Your task to perform on an android device: create a new album in the google photos Image 0: 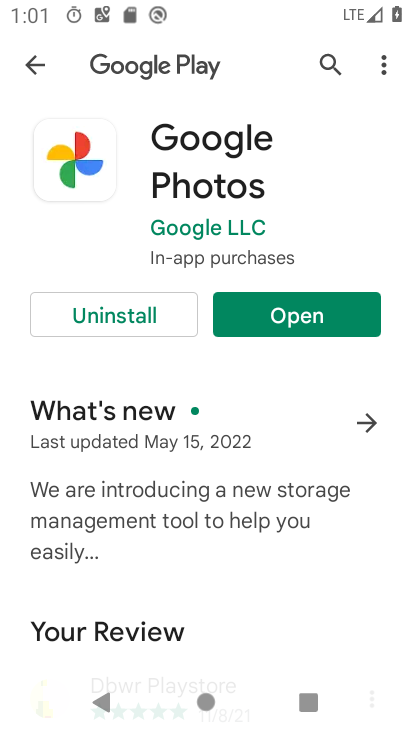
Step 0: press home button
Your task to perform on an android device: create a new album in the google photos Image 1: 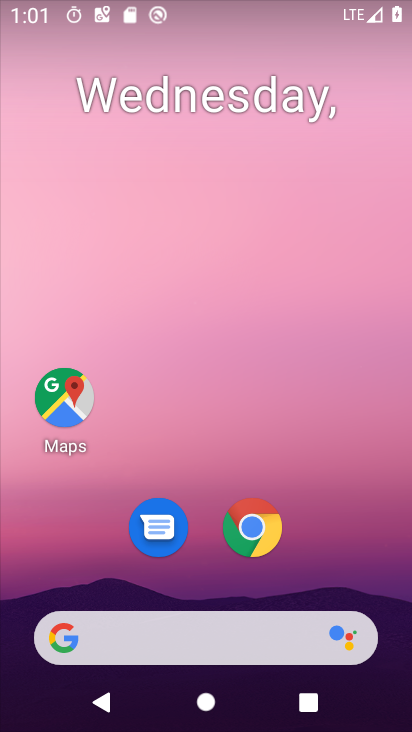
Step 1: drag from (345, 613) to (293, 14)
Your task to perform on an android device: create a new album in the google photos Image 2: 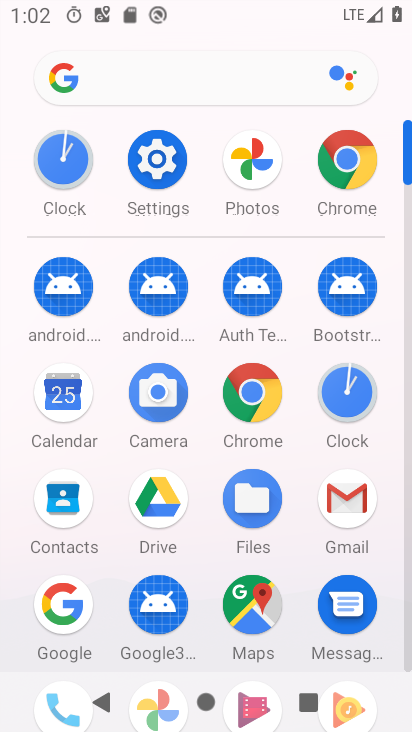
Step 2: drag from (292, 654) to (282, 308)
Your task to perform on an android device: create a new album in the google photos Image 3: 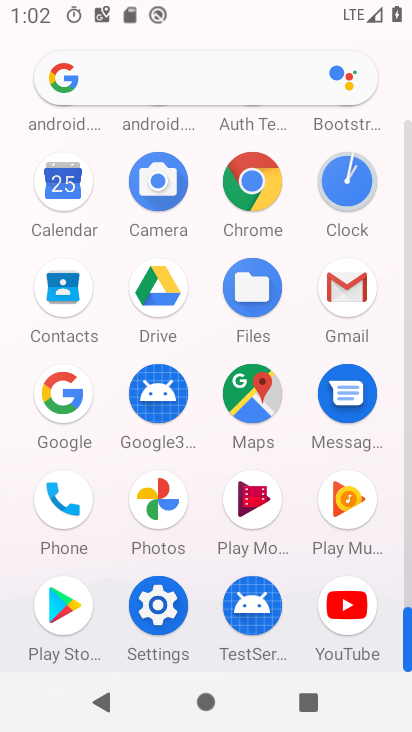
Step 3: click (169, 508)
Your task to perform on an android device: create a new album in the google photos Image 4: 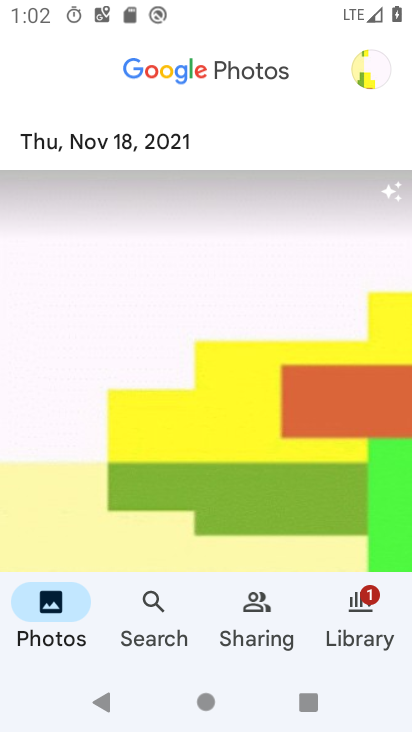
Step 4: click (371, 603)
Your task to perform on an android device: create a new album in the google photos Image 5: 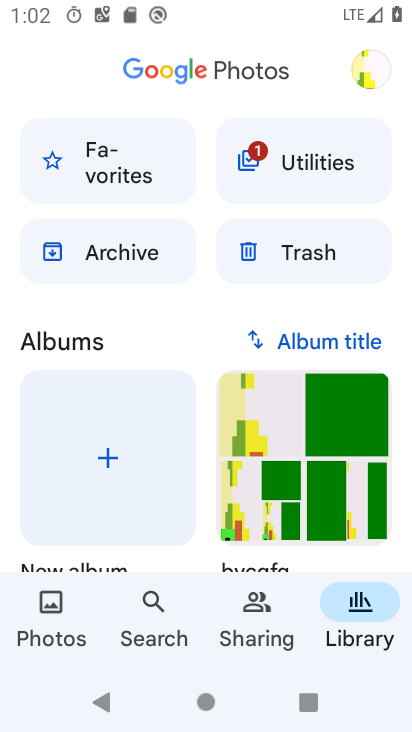
Step 5: click (120, 451)
Your task to perform on an android device: create a new album in the google photos Image 6: 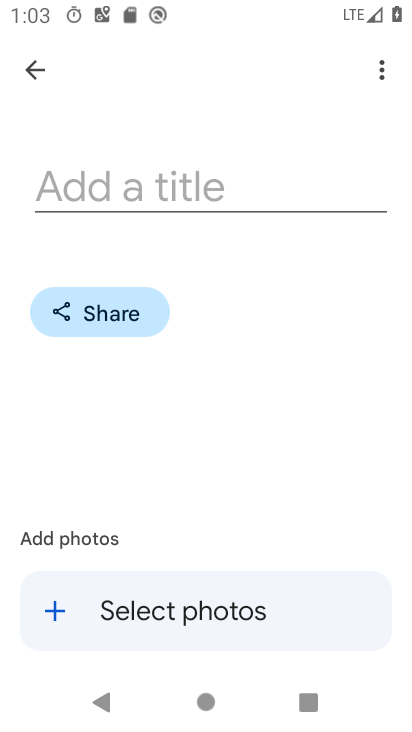
Step 6: click (107, 177)
Your task to perform on an android device: create a new album in the google photos Image 7: 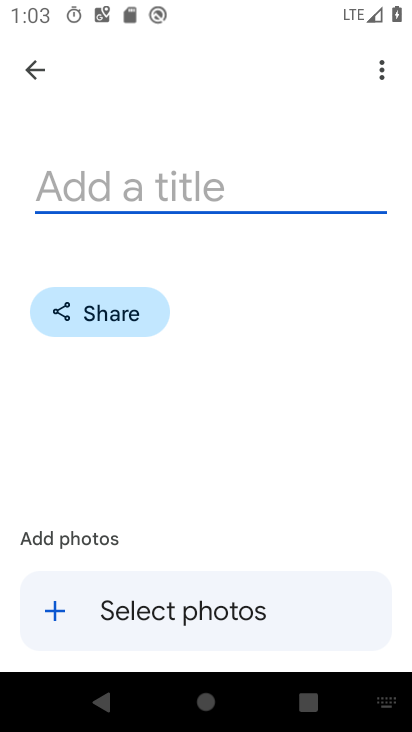
Step 7: type "kjdkjhjfk"
Your task to perform on an android device: create a new album in the google photos Image 8: 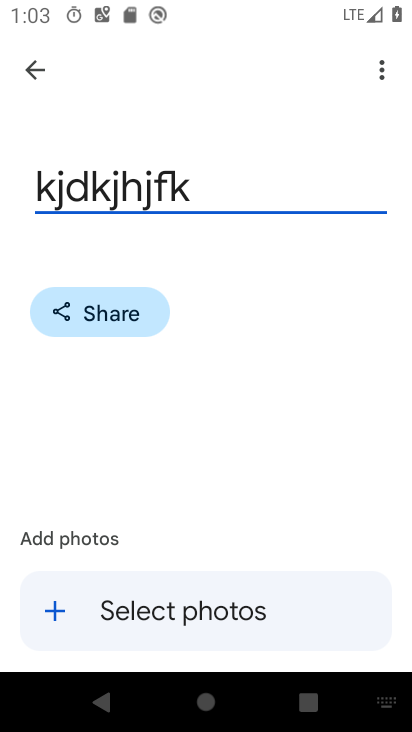
Step 8: click (61, 608)
Your task to perform on an android device: create a new album in the google photos Image 9: 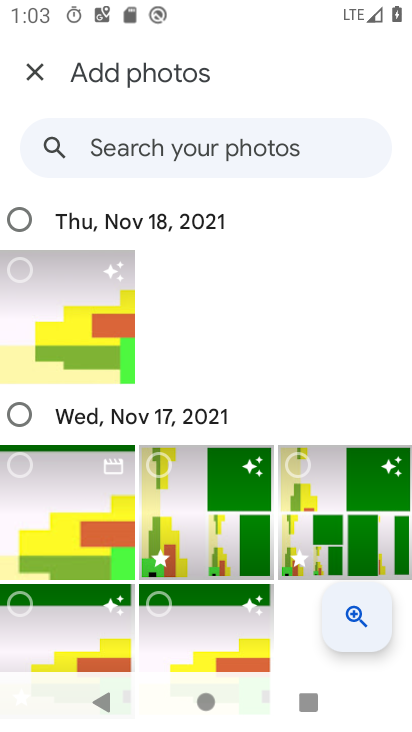
Step 9: click (63, 299)
Your task to perform on an android device: create a new album in the google photos Image 10: 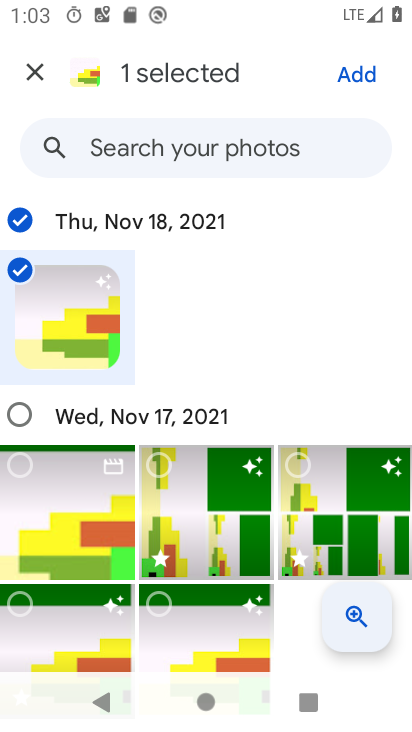
Step 10: click (352, 70)
Your task to perform on an android device: create a new album in the google photos Image 11: 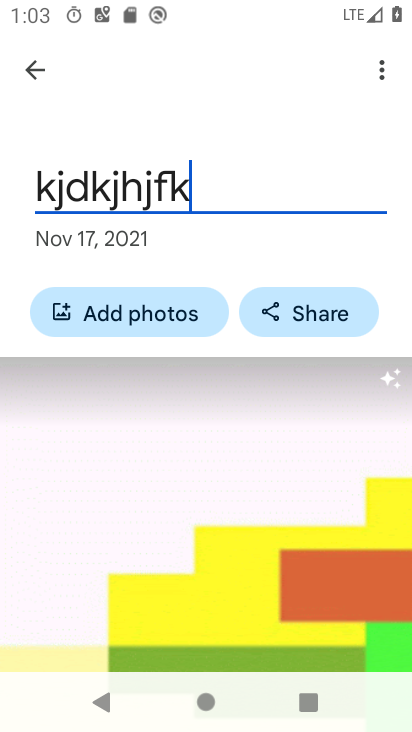
Step 11: task complete